Your task to perform on an android device: When is my next appointment? Image 0: 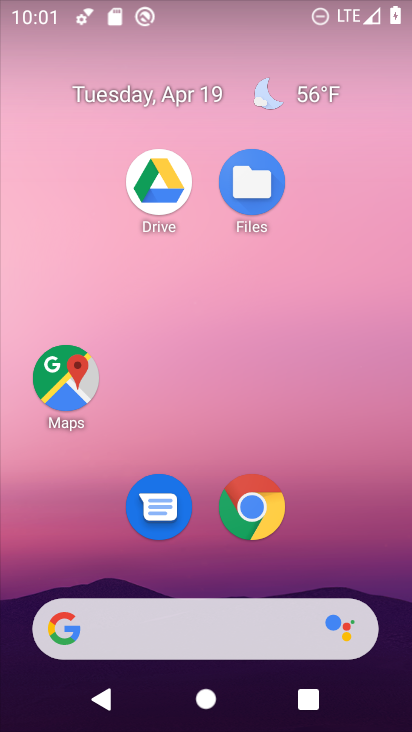
Step 0: drag from (364, 533) to (358, 93)
Your task to perform on an android device: When is my next appointment? Image 1: 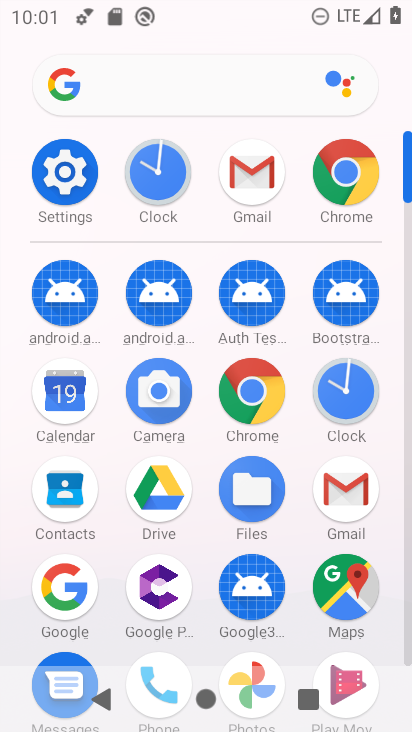
Step 1: click (66, 399)
Your task to perform on an android device: When is my next appointment? Image 2: 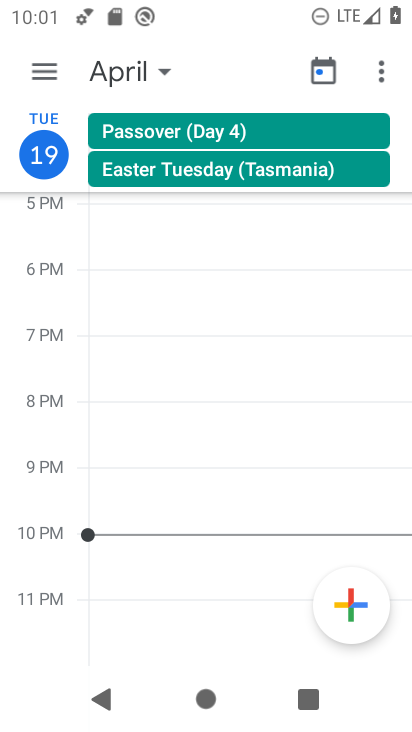
Step 2: task complete